Your task to perform on an android device: refresh tabs in the chrome app Image 0: 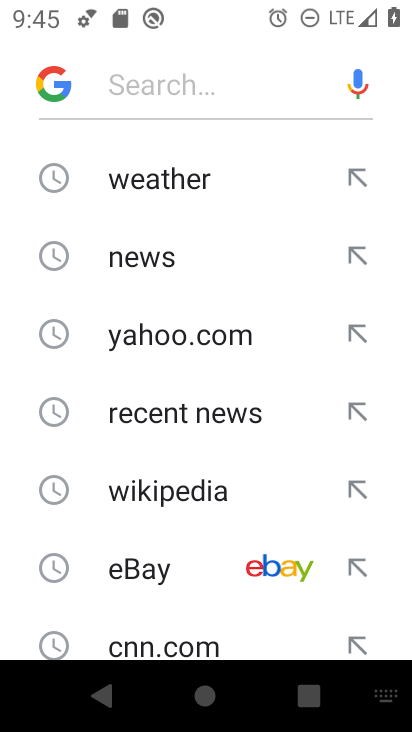
Step 0: press home button
Your task to perform on an android device: refresh tabs in the chrome app Image 1: 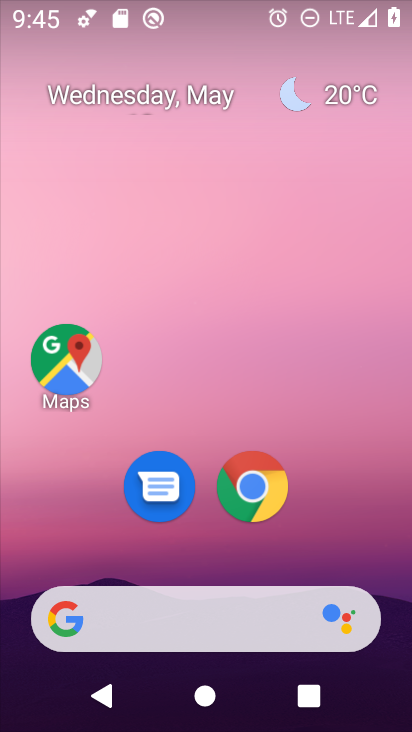
Step 1: click (255, 480)
Your task to perform on an android device: refresh tabs in the chrome app Image 2: 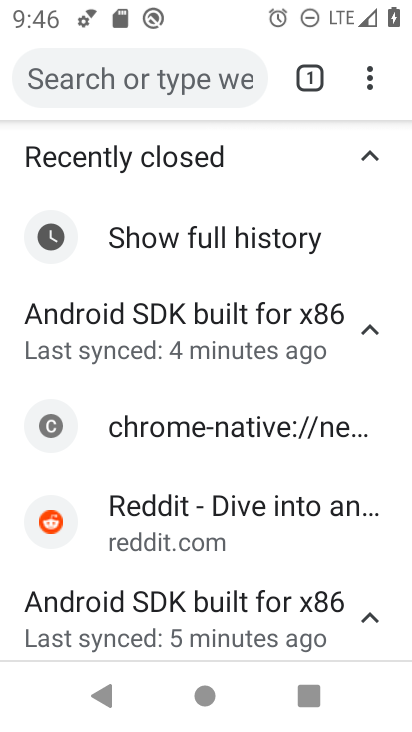
Step 2: task complete